Your task to perform on an android device: empty trash in google photos Image 0: 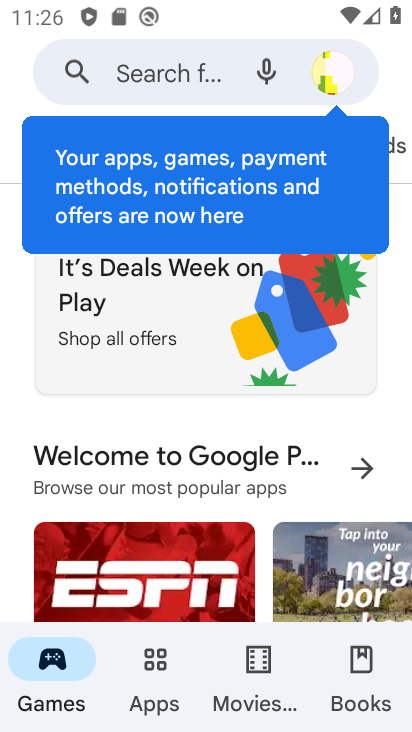
Step 0: press home button
Your task to perform on an android device: empty trash in google photos Image 1: 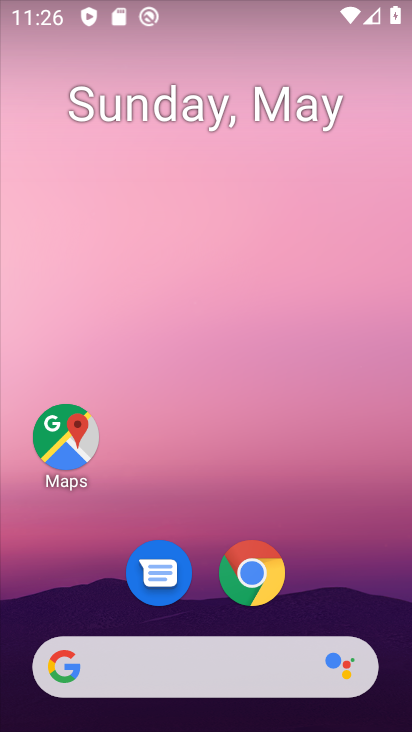
Step 1: drag from (69, 626) to (216, 52)
Your task to perform on an android device: empty trash in google photos Image 2: 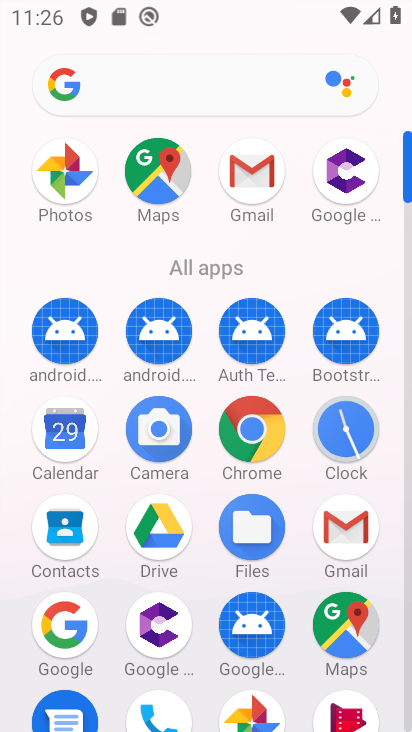
Step 2: drag from (211, 651) to (246, 309)
Your task to perform on an android device: empty trash in google photos Image 3: 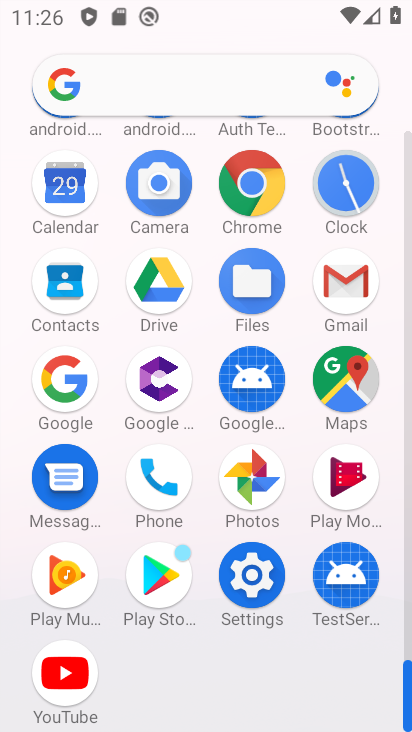
Step 3: click (238, 490)
Your task to perform on an android device: empty trash in google photos Image 4: 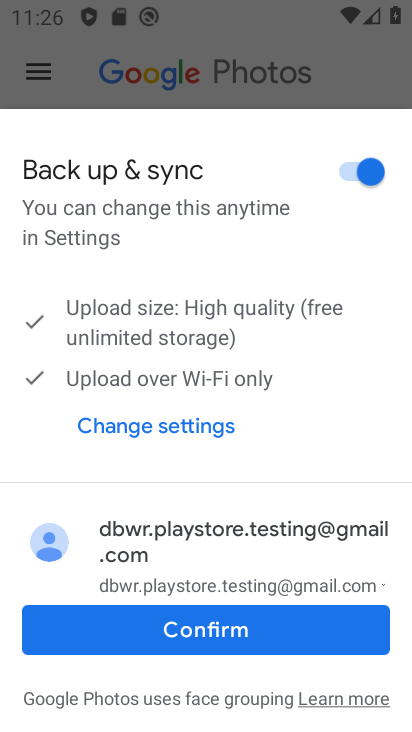
Step 4: click (240, 627)
Your task to perform on an android device: empty trash in google photos Image 5: 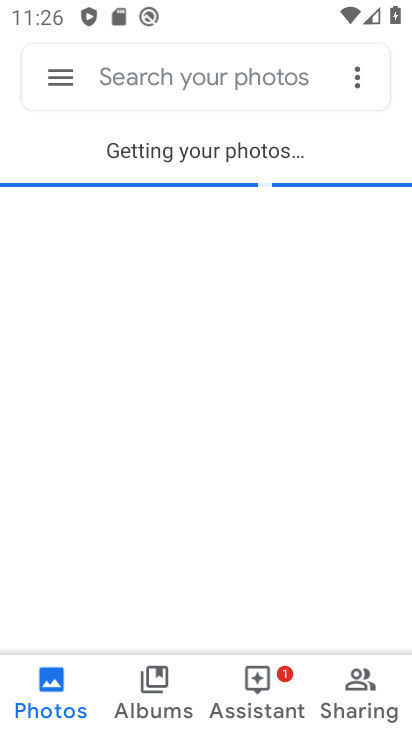
Step 5: click (69, 101)
Your task to perform on an android device: empty trash in google photos Image 6: 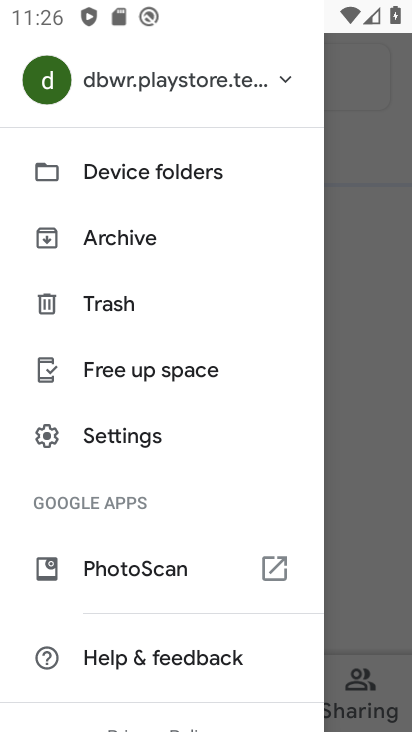
Step 6: click (133, 312)
Your task to perform on an android device: empty trash in google photos Image 7: 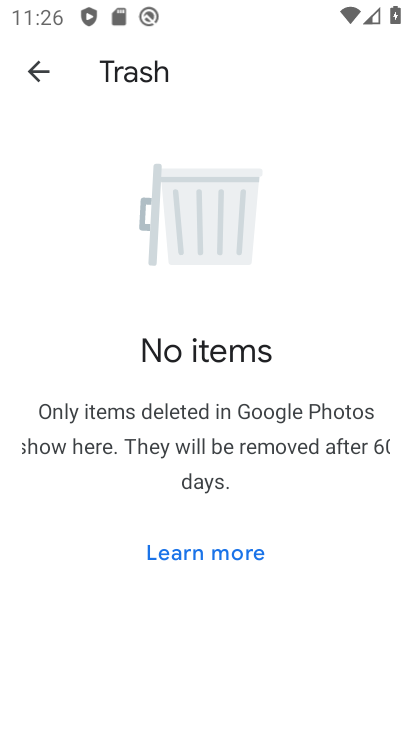
Step 7: task complete